Your task to perform on an android device: open app "Facebook" (install if not already installed) and enter user name: "resultants@gmail.com" and password: "earned" Image 0: 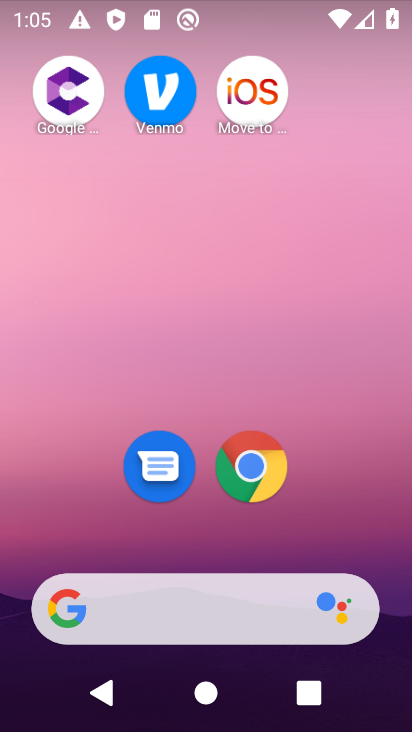
Step 0: drag from (144, 531) to (156, 346)
Your task to perform on an android device: open app "Facebook" (install if not already installed) and enter user name: "resultants@gmail.com" and password: "earned" Image 1: 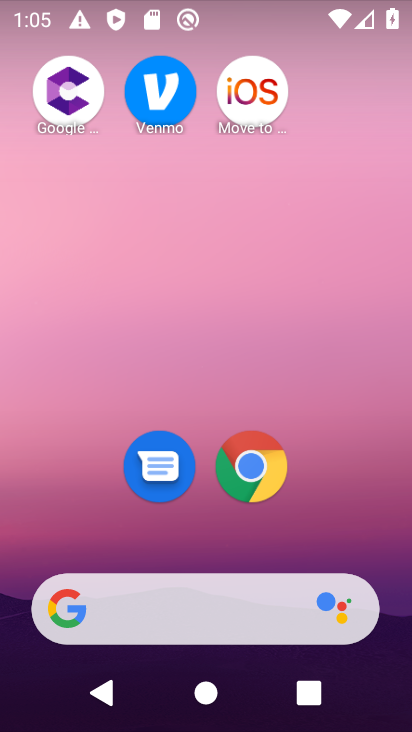
Step 1: drag from (152, 526) to (200, 126)
Your task to perform on an android device: open app "Facebook" (install if not already installed) and enter user name: "resultants@gmail.com" and password: "earned" Image 2: 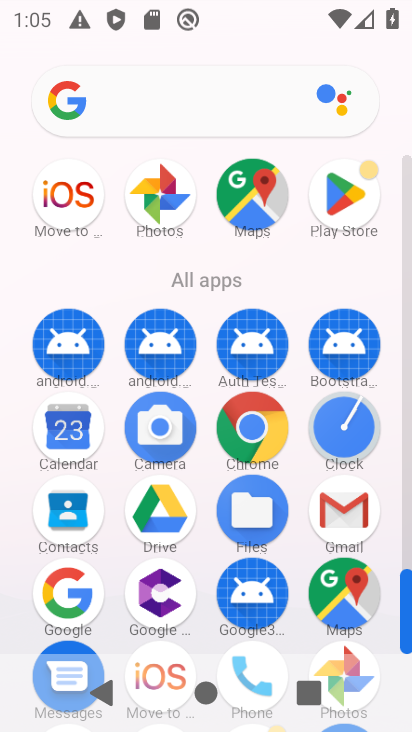
Step 2: click (324, 183)
Your task to perform on an android device: open app "Facebook" (install if not already installed) and enter user name: "resultants@gmail.com" and password: "earned" Image 3: 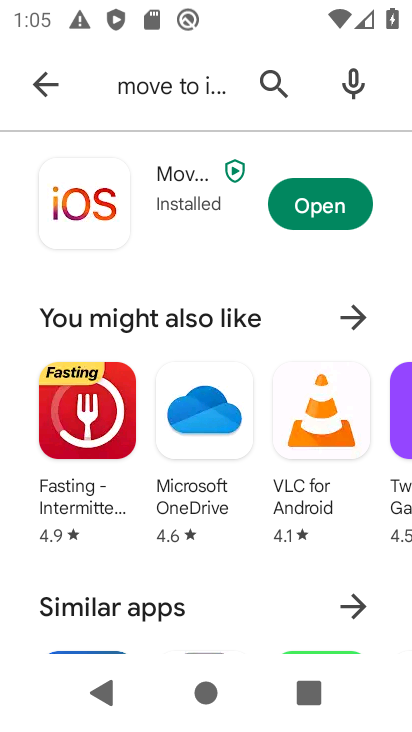
Step 3: click (41, 81)
Your task to perform on an android device: open app "Facebook" (install if not already installed) and enter user name: "resultants@gmail.com" and password: "earned" Image 4: 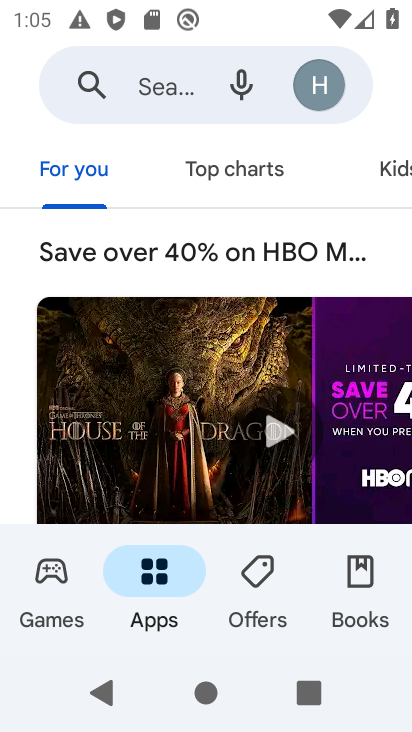
Step 4: click (165, 71)
Your task to perform on an android device: open app "Facebook" (install if not already installed) and enter user name: "resultants@gmail.com" and password: "earned" Image 5: 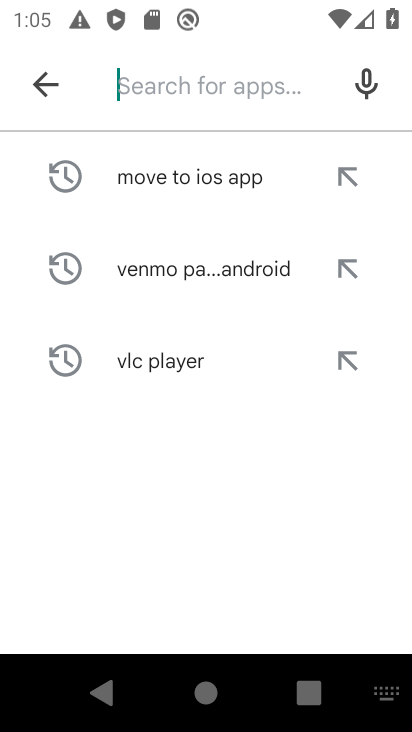
Step 5: type "facebook "
Your task to perform on an android device: open app "Facebook" (install if not already installed) and enter user name: "resultants@gmail.com" and password: "earned" Image 6: 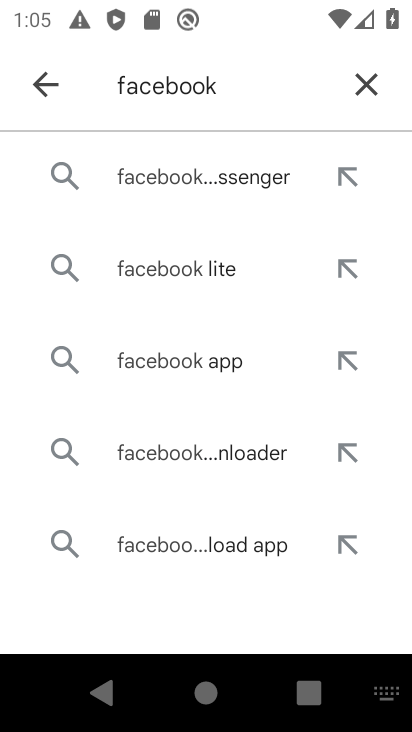
Step 6: click (177, 370)
Your task to perform on an android device: open app "Facebook" (install if not already installed) and enter user name: "resultants@gmail.com" and password: "earned" Image 7: 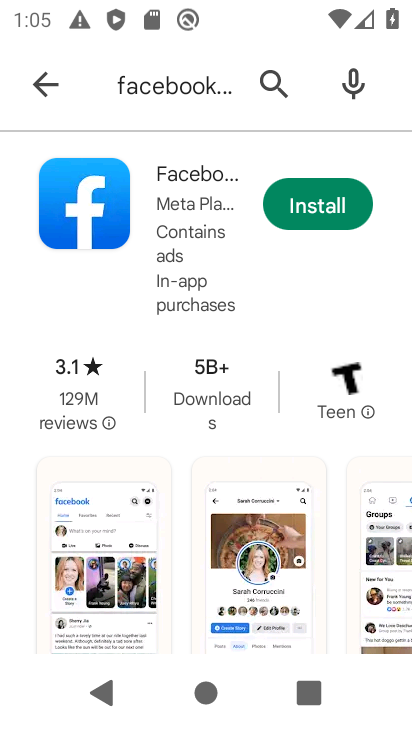
Step 7: click (340, 194)
Your task to perform on an android device: open app "Facebook" (install if not already installed) and enter user name: "resultants@gmail.com" and password: "earned" Image 8: 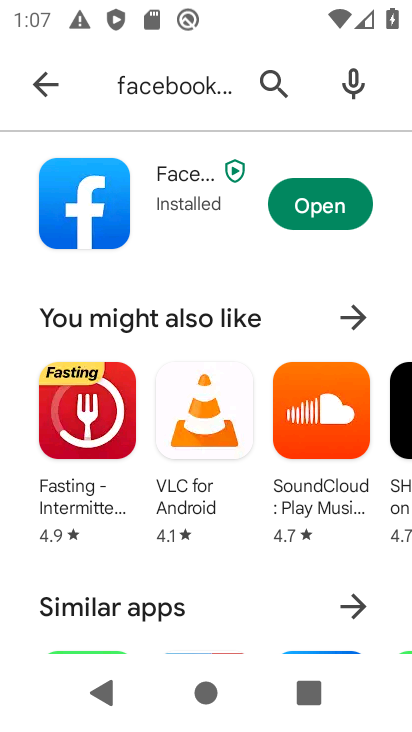
Step 8: click (346, 203)
Your task to perform on an android device: open app "Facebook" (install if not already installed) and enter user name: "resultants@gmail.com" and password: "earned" Image 9: 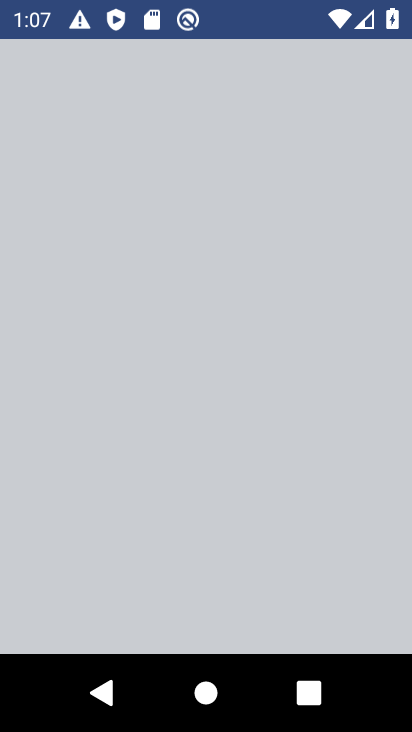
Step 9: task complete